Your task to perform on an android device: Add "usb-a to usb-b" to the cart on walmart.com Image 0: 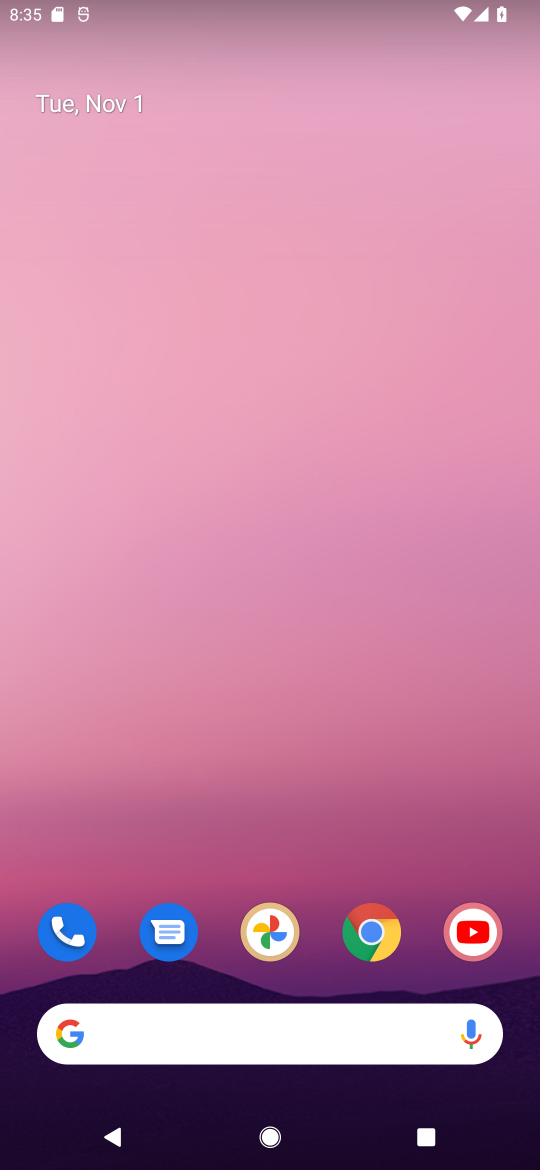
Step 0: click (377, 936)
Your task to perform on an android device: Add "usb-a to usb-b" to the cart on walmart.com Image 1: 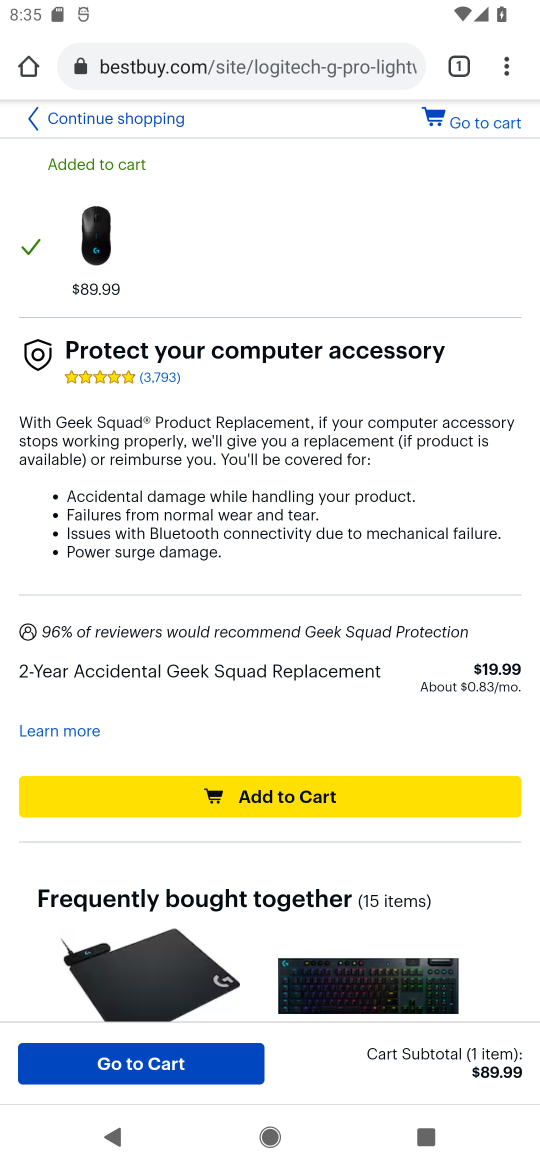
Step 1: click (271, 78)
Your task to perform on an android device: Add "usb-a to usb-b" to the cart on walmart.com Image 2: 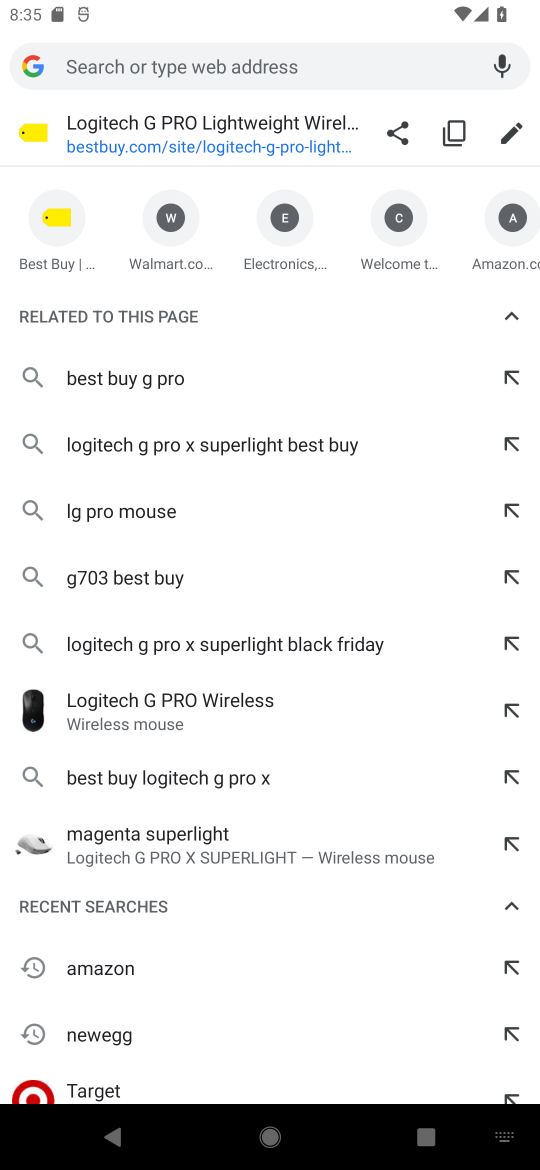
Step 2: type "walmart.com"
Your task to perform on an android device: Add "usb-a to usb-b" to the cart on walmart.com Image 3: 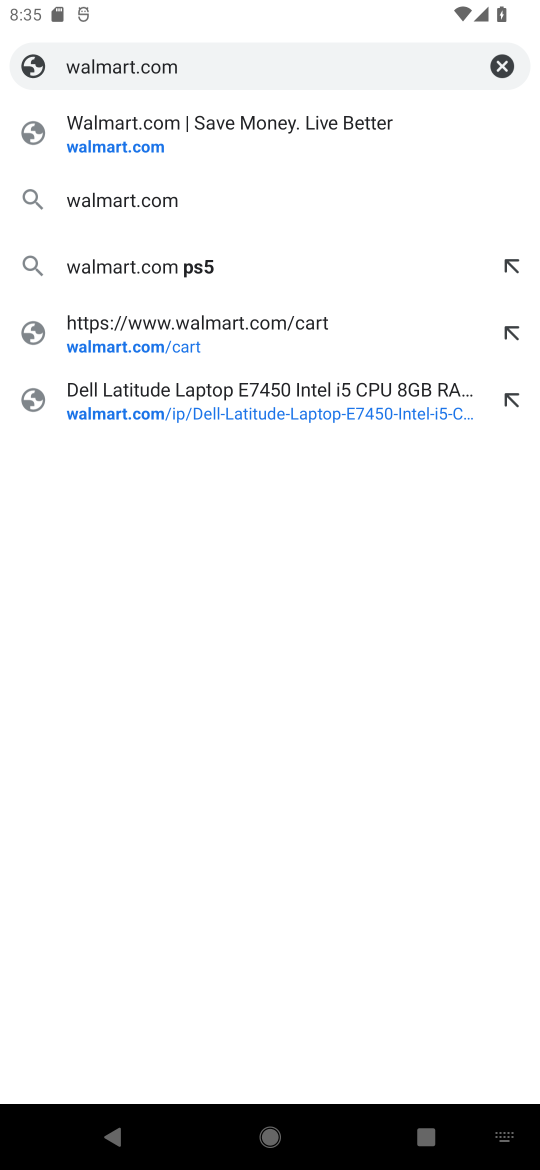
Step 3: click (105, 152)
Your task to perform on an android device: Add "usb-a to usb-b" to the cart on walmart.com Image 4: 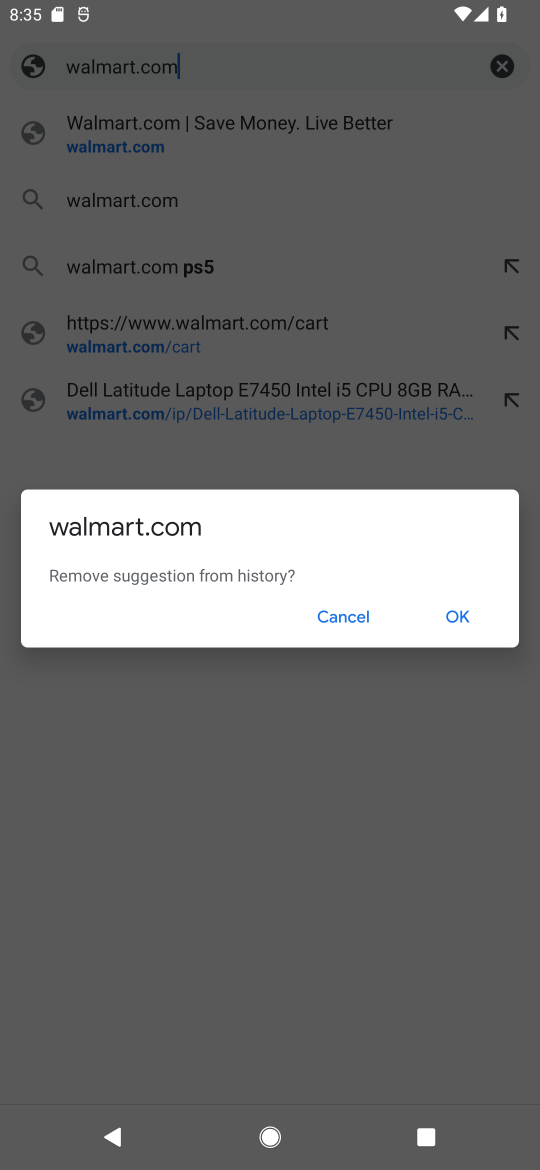
Step 4: click (338, 621)
Your task to perform on an android device: Add "usb-a to usb-b" to the cart on walmart.com Image 5: 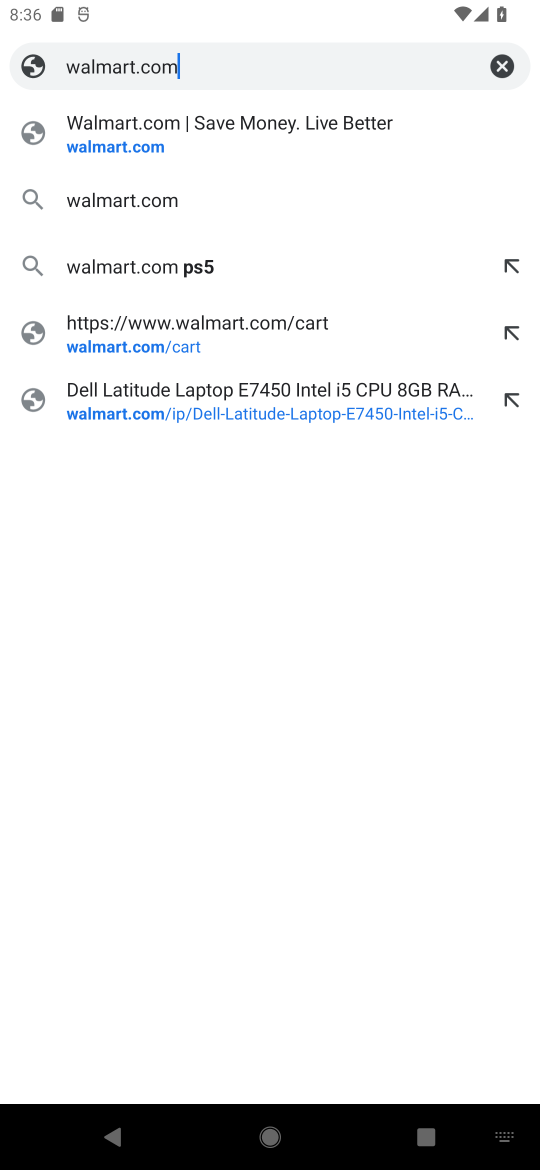
Step 5: click (121, 146)
Your task to perform on an android device: Add "usb-a to usb-b" to the cart on walmart.com Image 6: 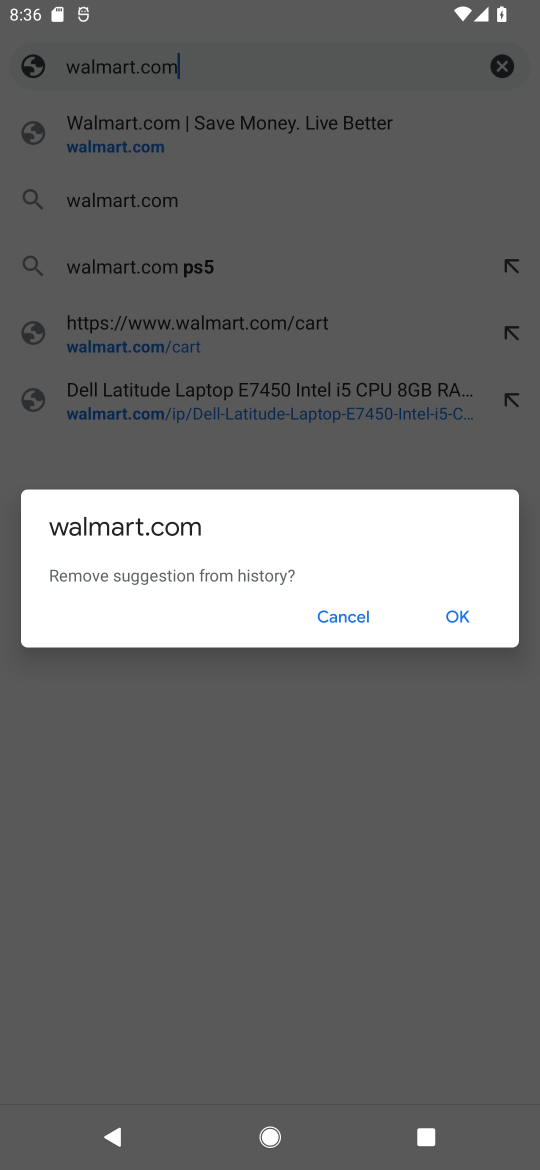
Step 6: click (336, 618)
Your task to perform on an android device: Add "usb-a to usb-b" to the cart on walmart.com Image 7: 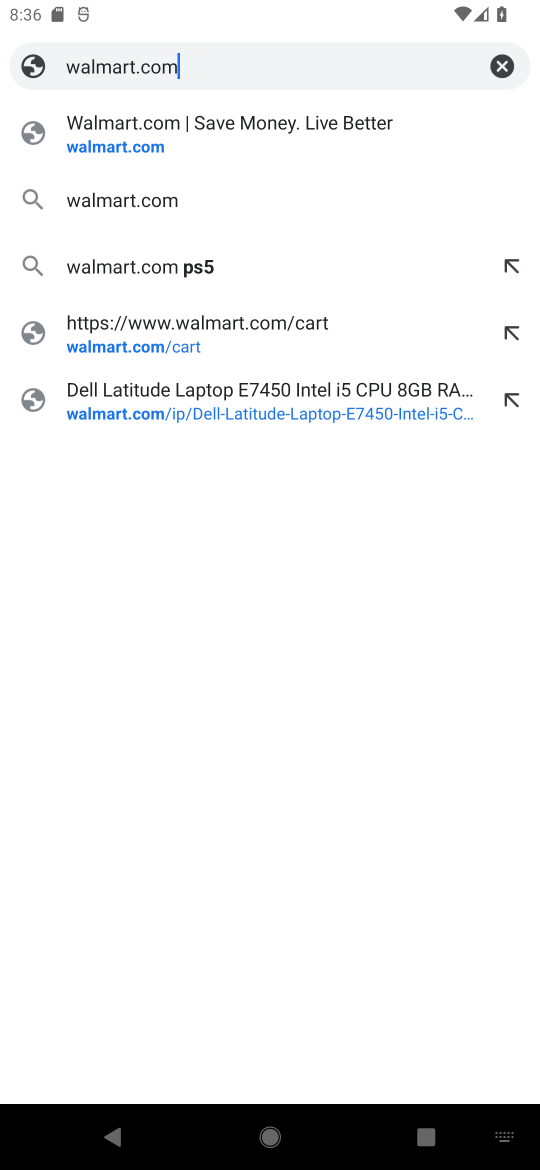
Step 7: click (112, 153)
Your task to perform on an android device: Add "usb-a to usb-b" to the cart on walmart.com Image 8: 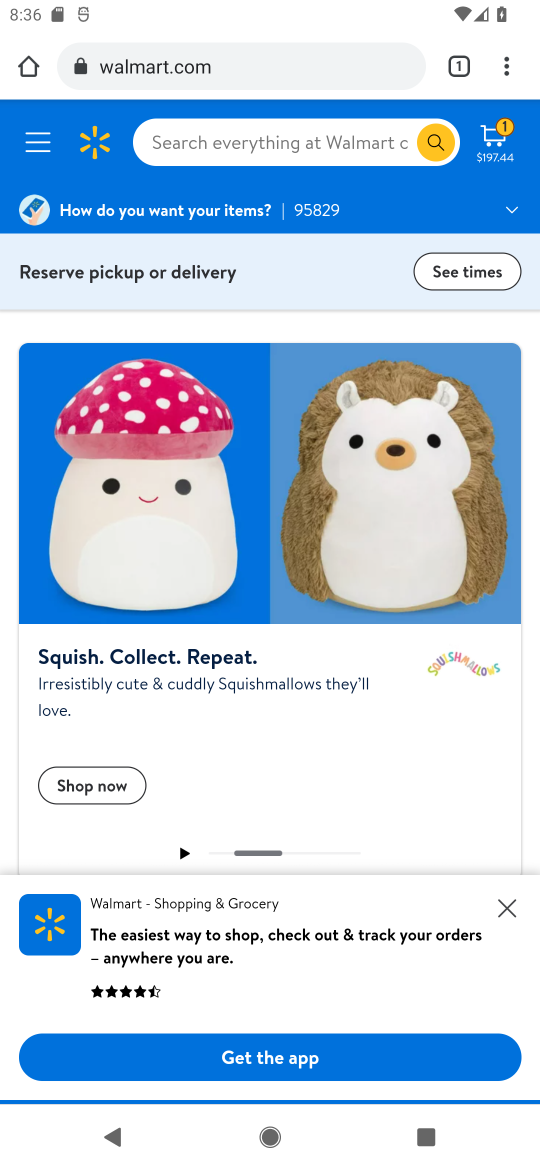
Step 8: click (294, 131)
Your task to perform on an android device: Add "usb-a to usb-b" to the cart on walmart.com Image 9: 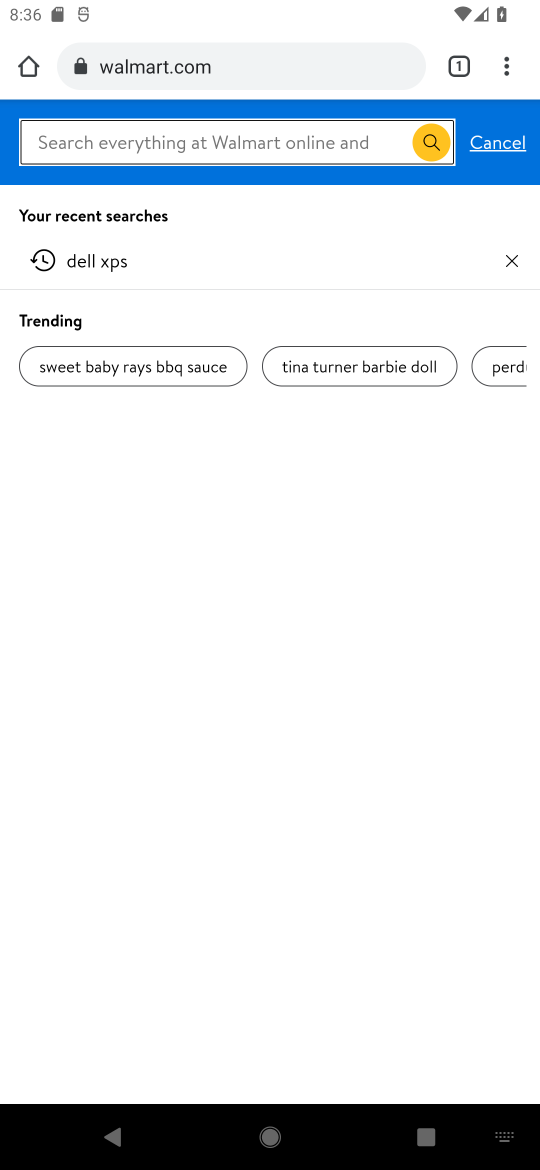
Step 9: type "usb-a to usb-b"
Your task to perform on an android device: Add "usb-a to usb-b" to the cart on walmart.com Image 10: 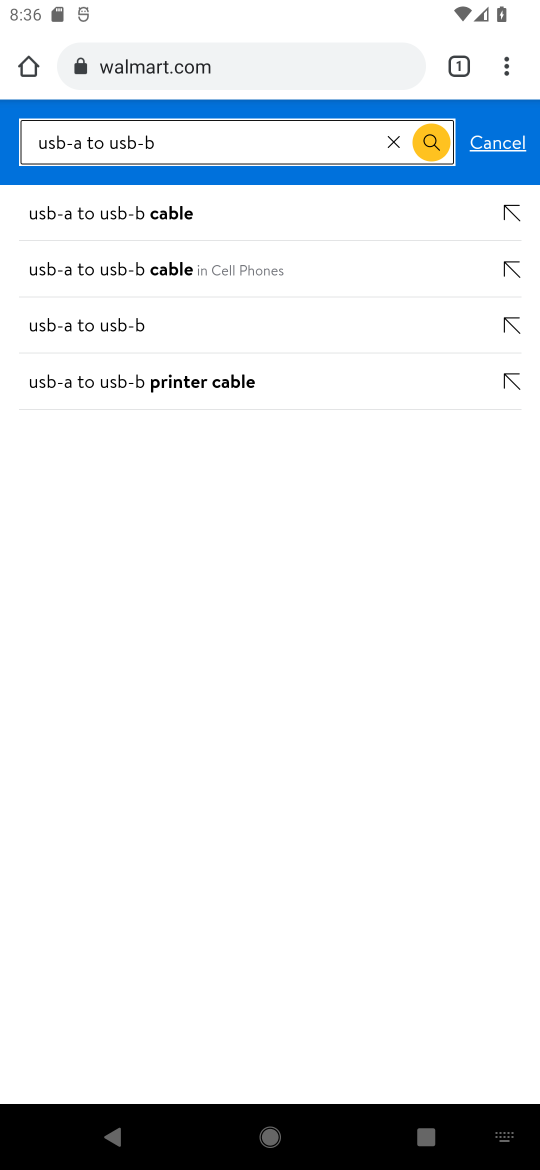
Step 10: click (132, 224)
Your task to perform on an android device: Add "usb-a to usb-b" to the cart on walmart.com Image 11: 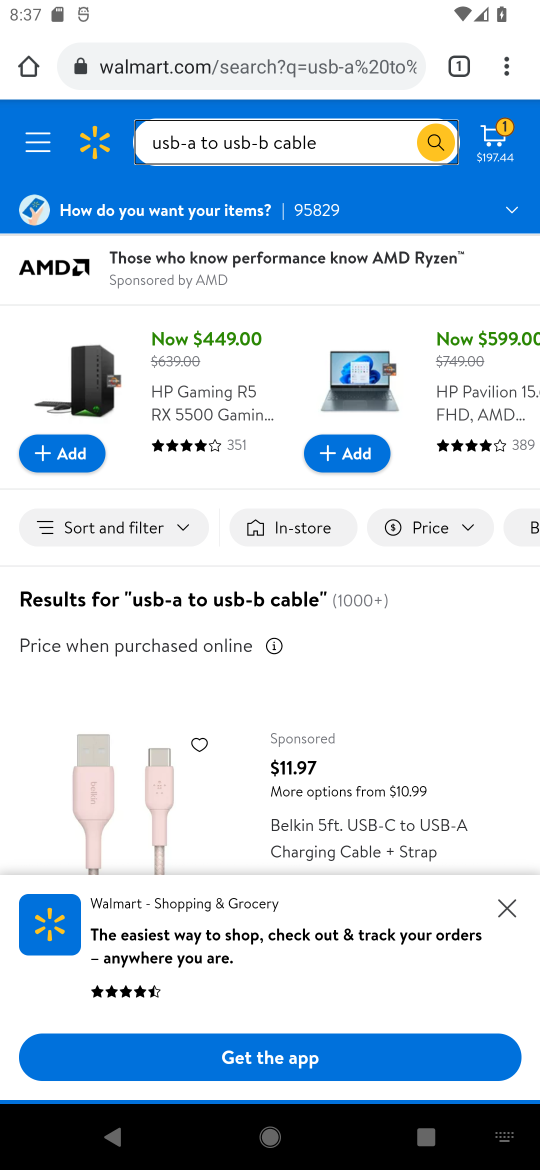
Step 11: drag from (335, 798) to (344, 499)
Your task to perform on an android device: Add "usb-a to usb-b" to the cart on walmart.com Image 12: 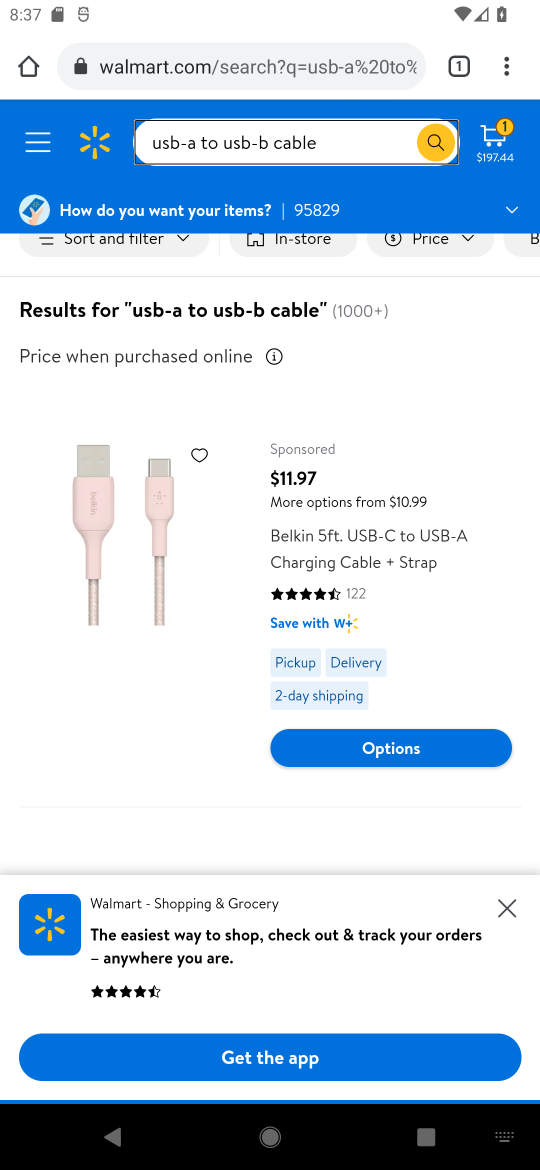
Step 12: click (180, 531)
Your task to perform on an android device: Add "usb-a to usb-b" to the cart on walmart.com Image 13: 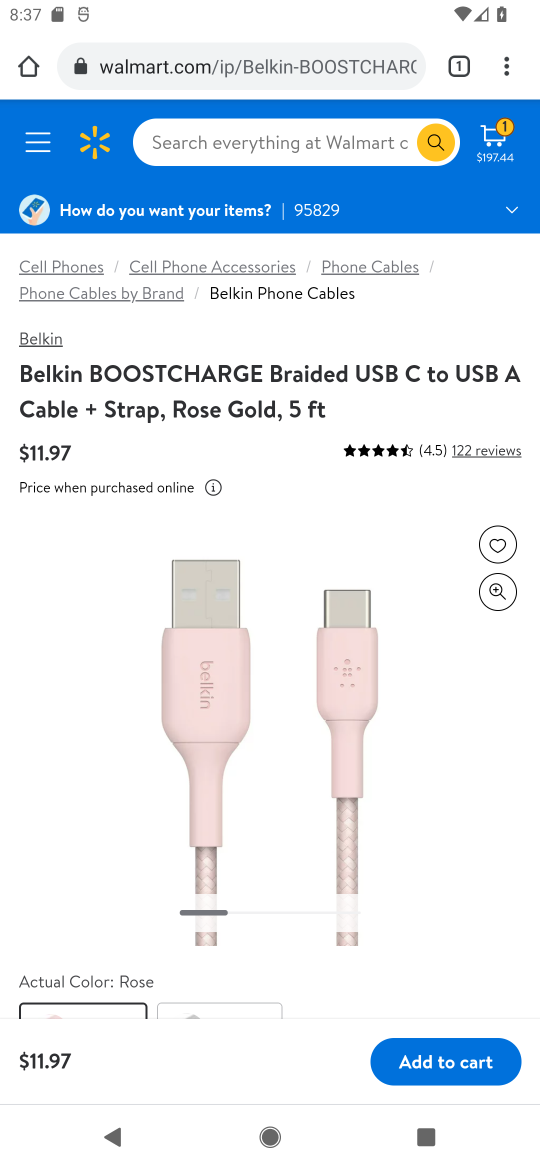
Step 13: click (465, 1071)
Your task to perform on an android device: Add "usb-a to usb-b" to the cart on walmart.com Image 14: 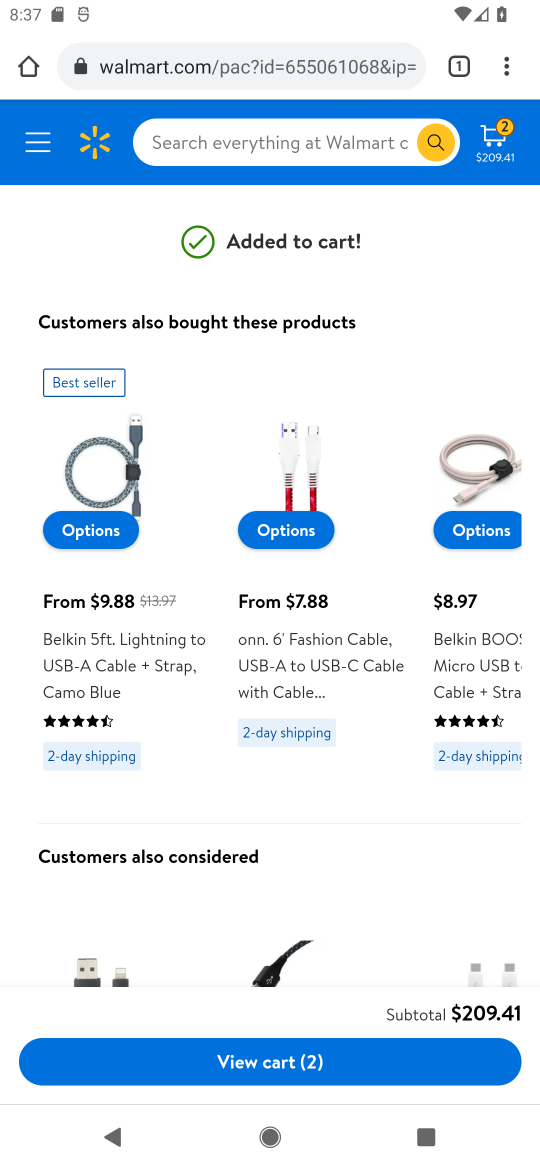
Step 14: task complete